Your task to perform on an android device: toggle data saver in the chrome app Image 0: 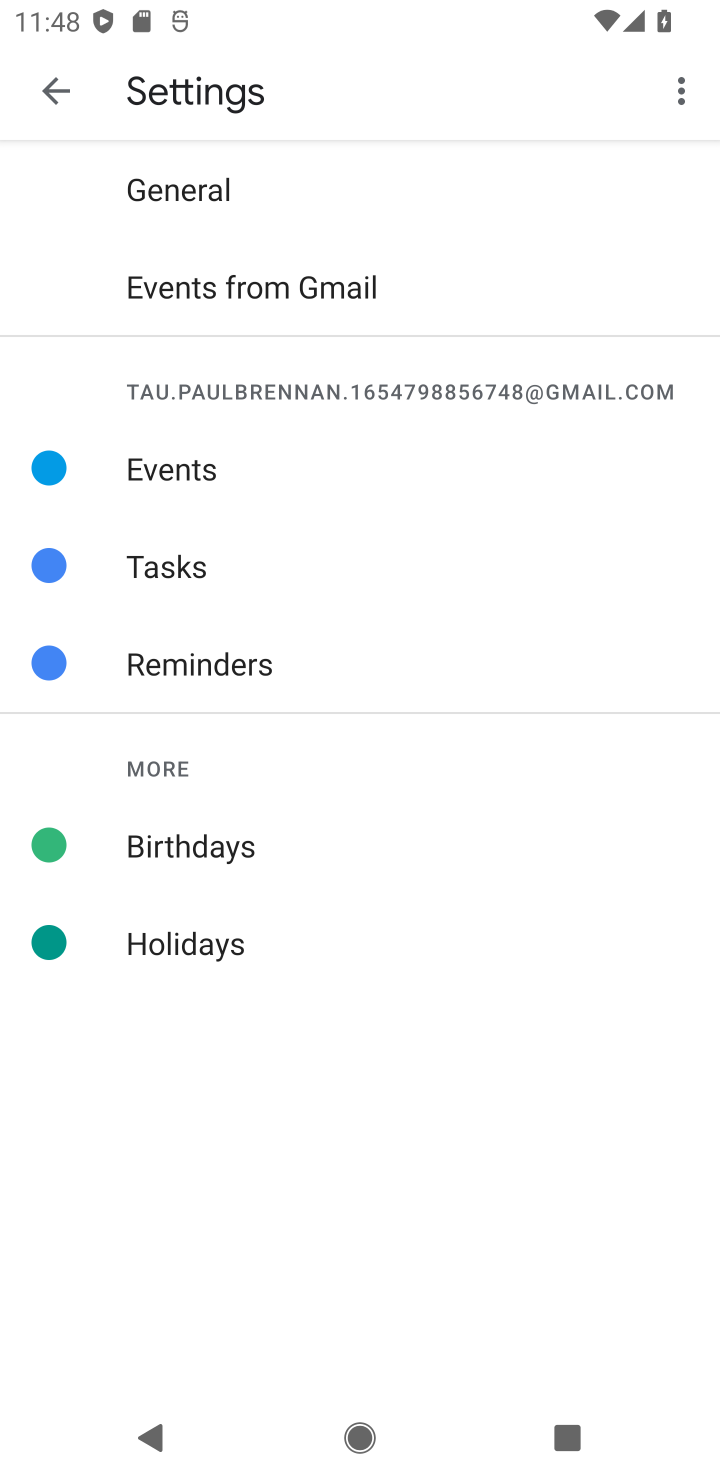
Step 0: press home button
Your task to perform on an android device: toggle data saver in the chrome app Image 1: 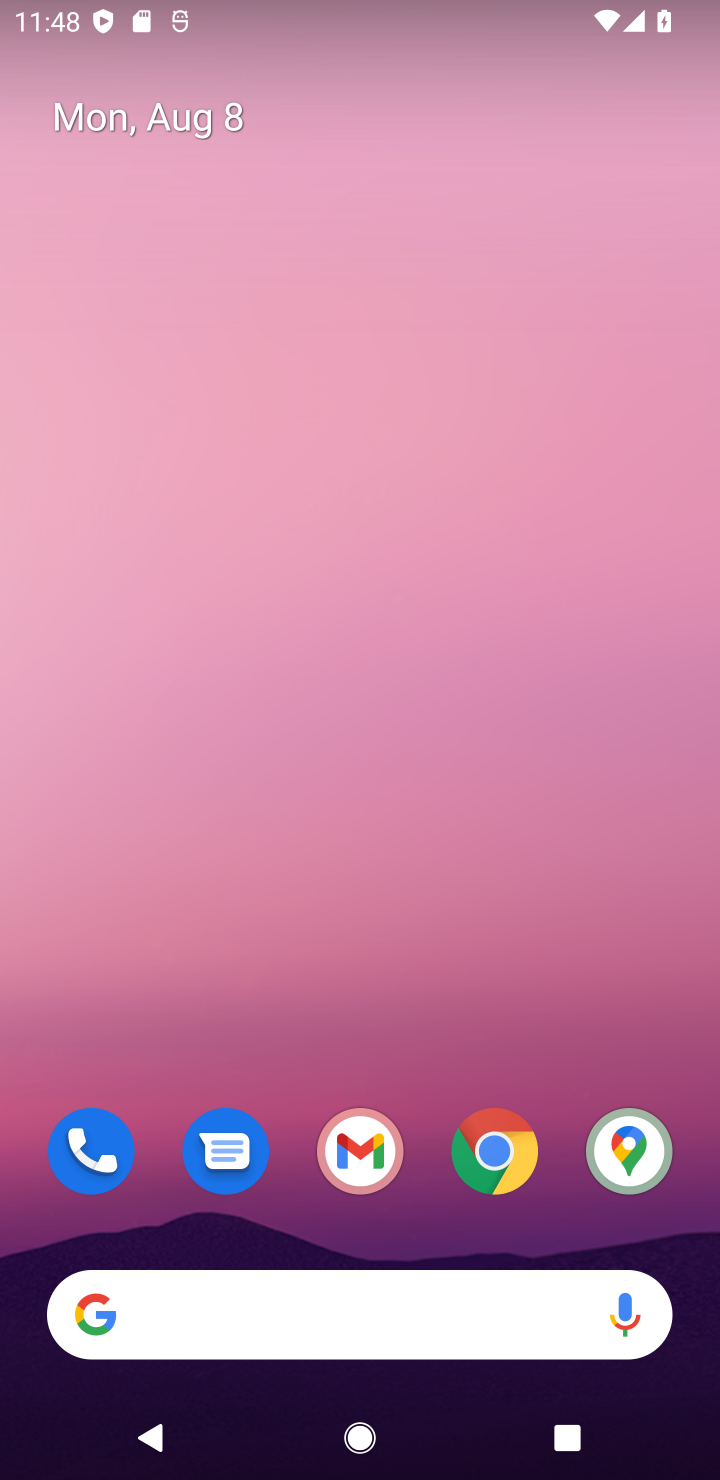
Step 1: click (509, 1160)
Your task to perform on an android device: toggle data saver in the chrome app Image 2: 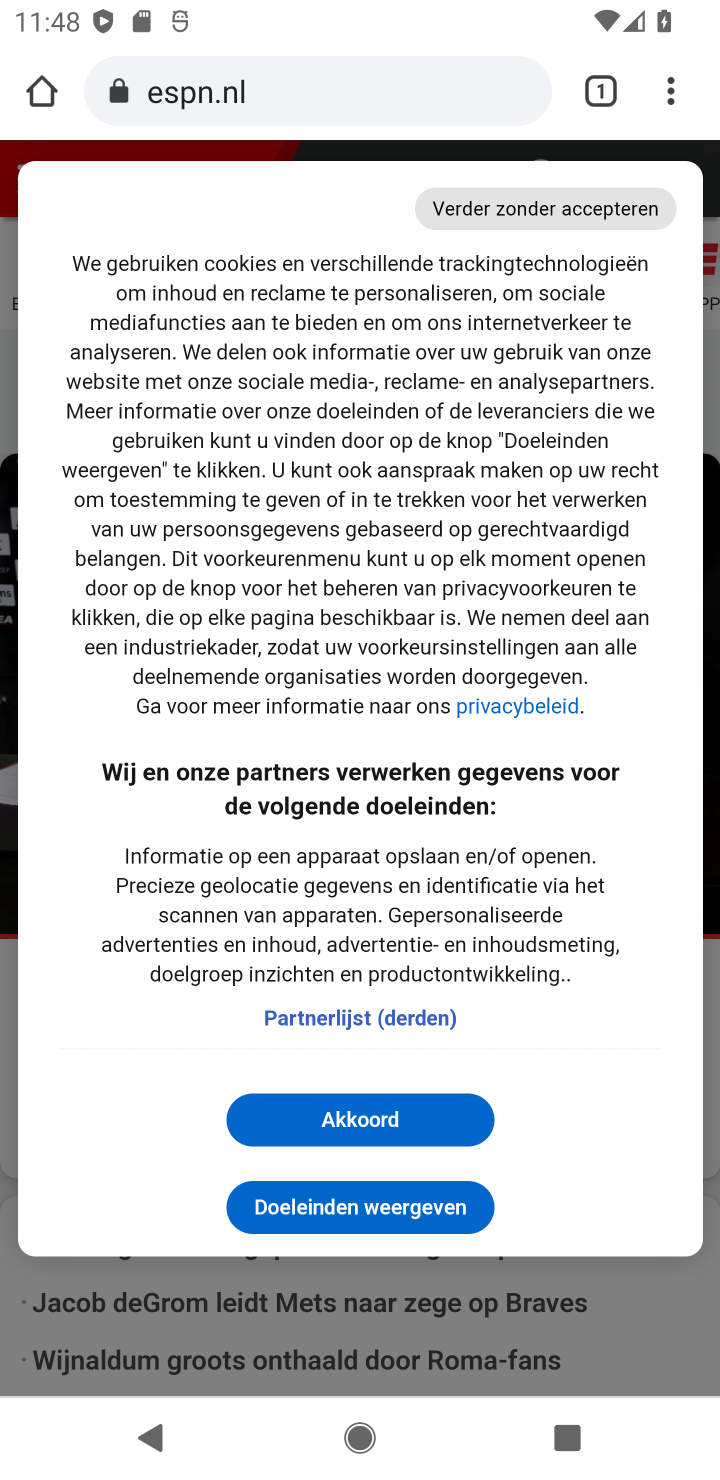
Step 2: click (669, 92)
Your task to perform on an android device: toggle data saver in the chrome app Image 3: 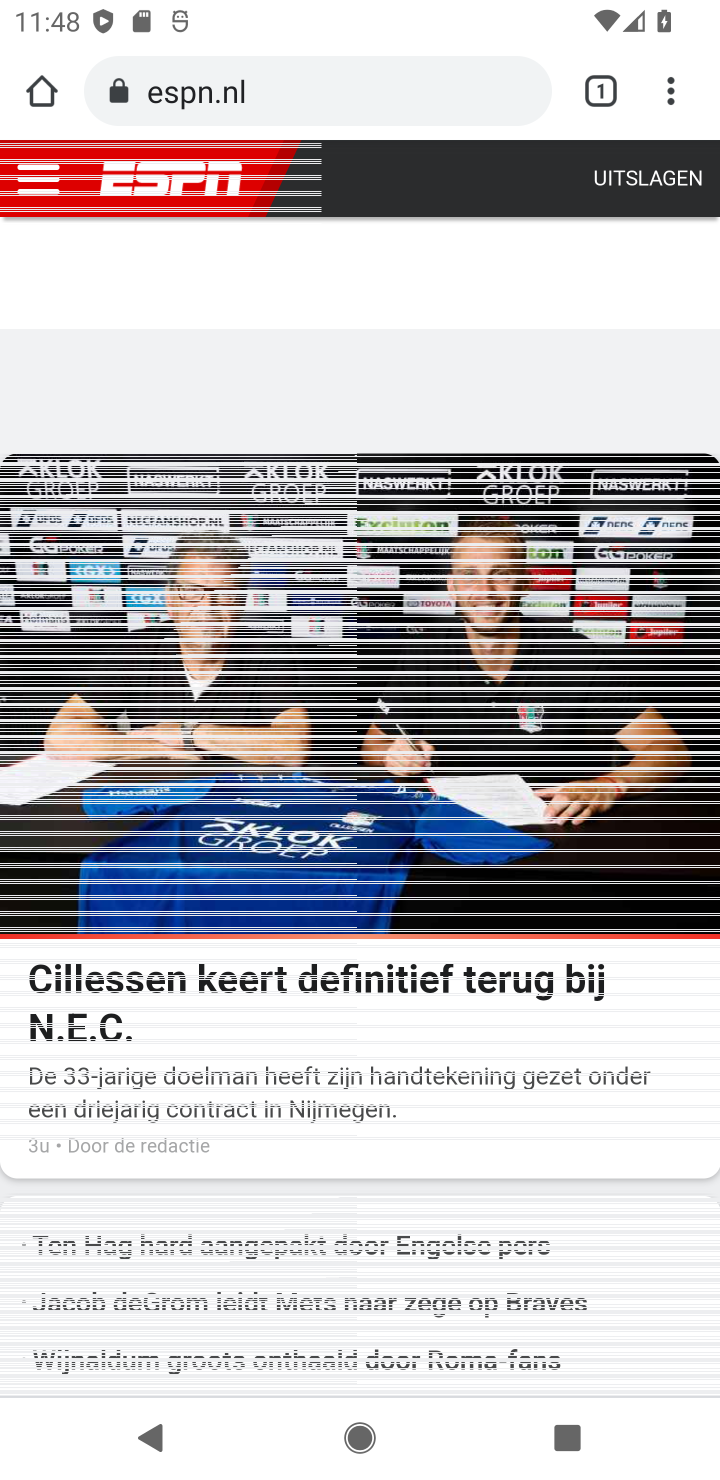
Step 3: click (668, 79)
Your task to perform on an android device: toggle data saver in the chrome app Image 4: 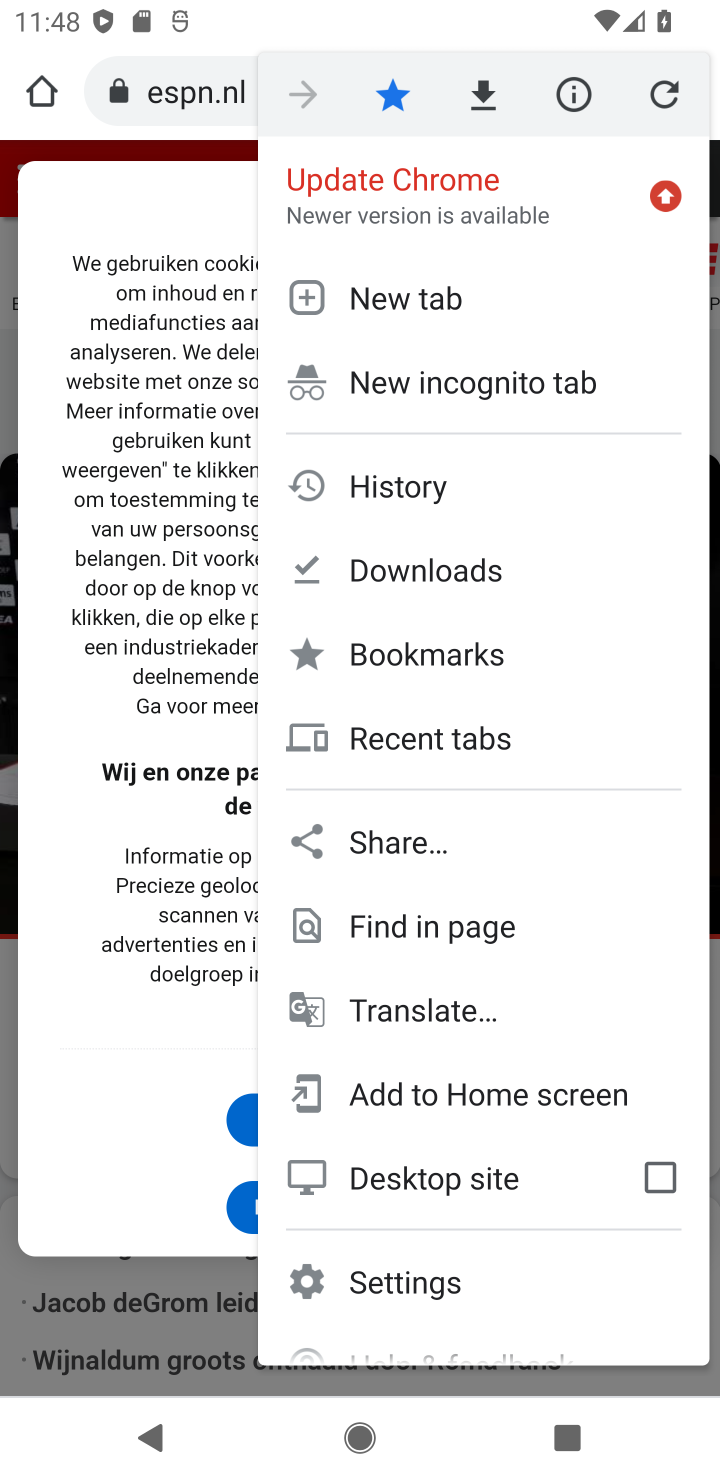
Step 4: click (421, 1285)
Your task to perform on an android device: toggle data saver in the chrome app Image 5: 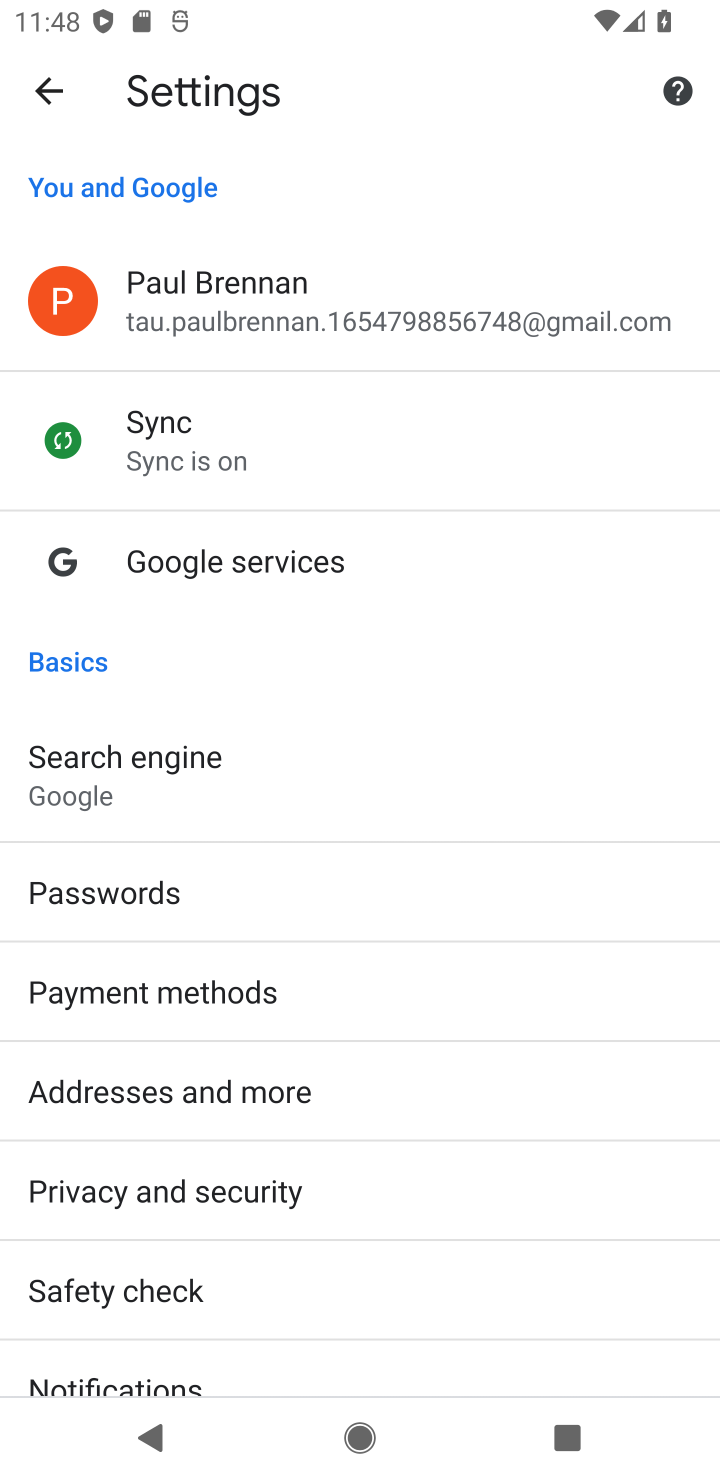
Step 5: drag from (248, 1268) to (221, 715)
Your task to perform on an android device: toggle data saver in the chrome app Image 6: 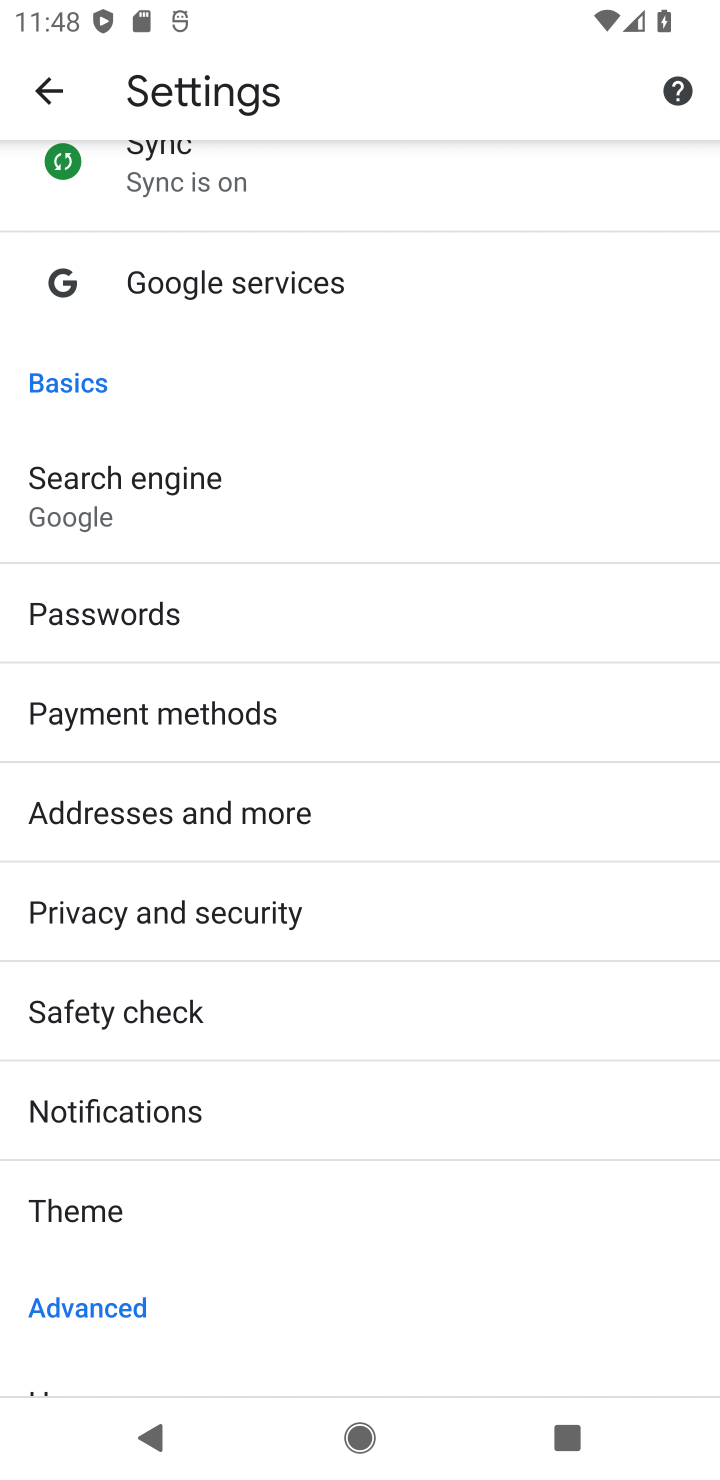
Step 6: drag from (284, 1289) to (160, 706)
Your task to perform on an android device: toggle data saver in the chrome app Image 7: 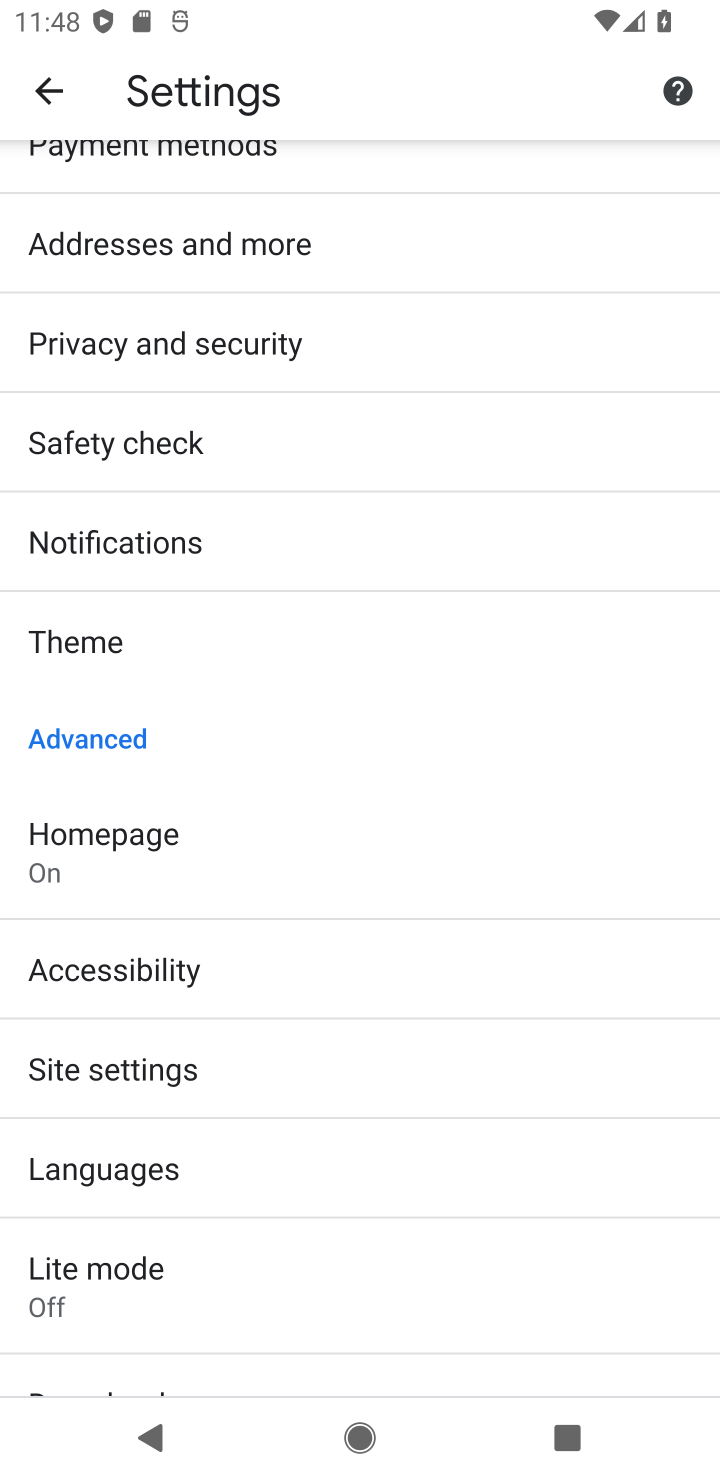
Step 7: click (156, 1269)
Your task to perform on an android device: toggle data saver in the chrome app Image 8: 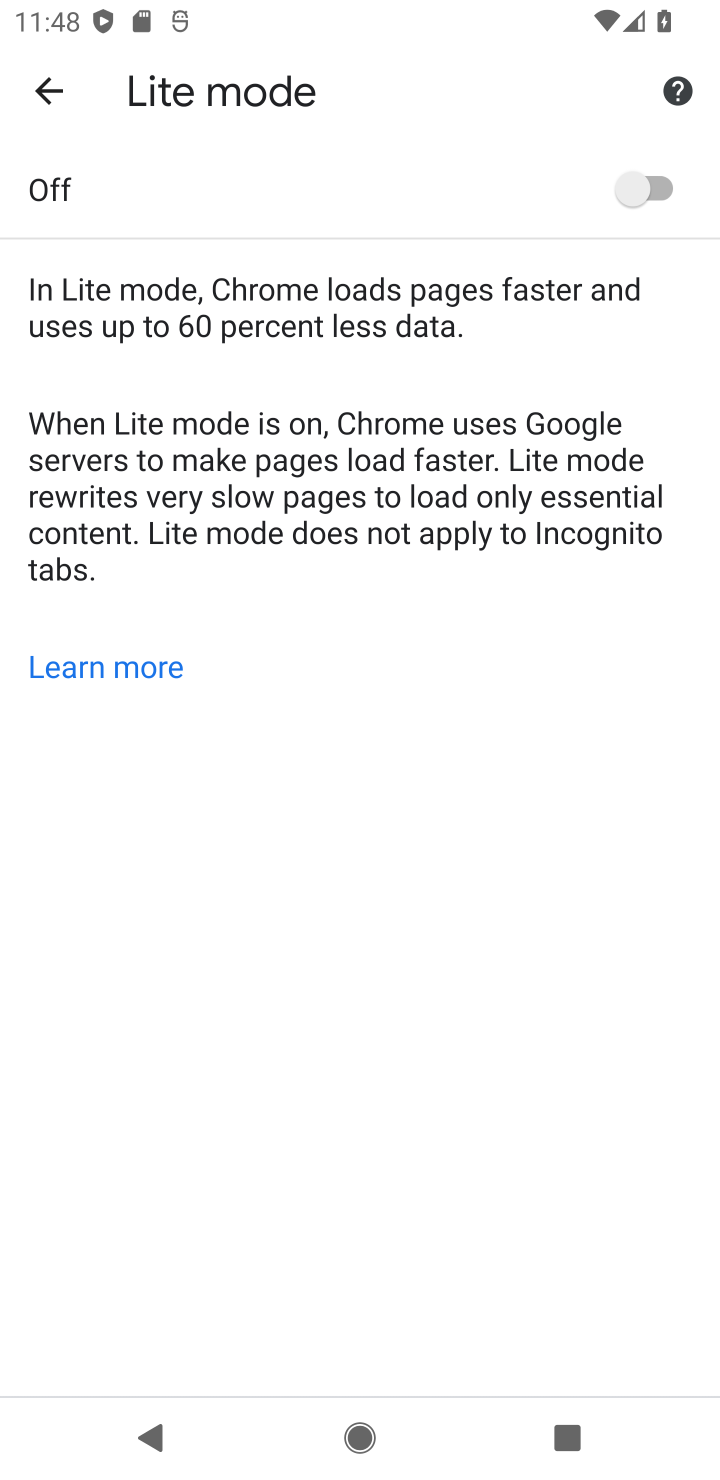
Step 8: click (633, 195)
Your task to perform on an android device: toggle data saver in the chrome app Image 9: 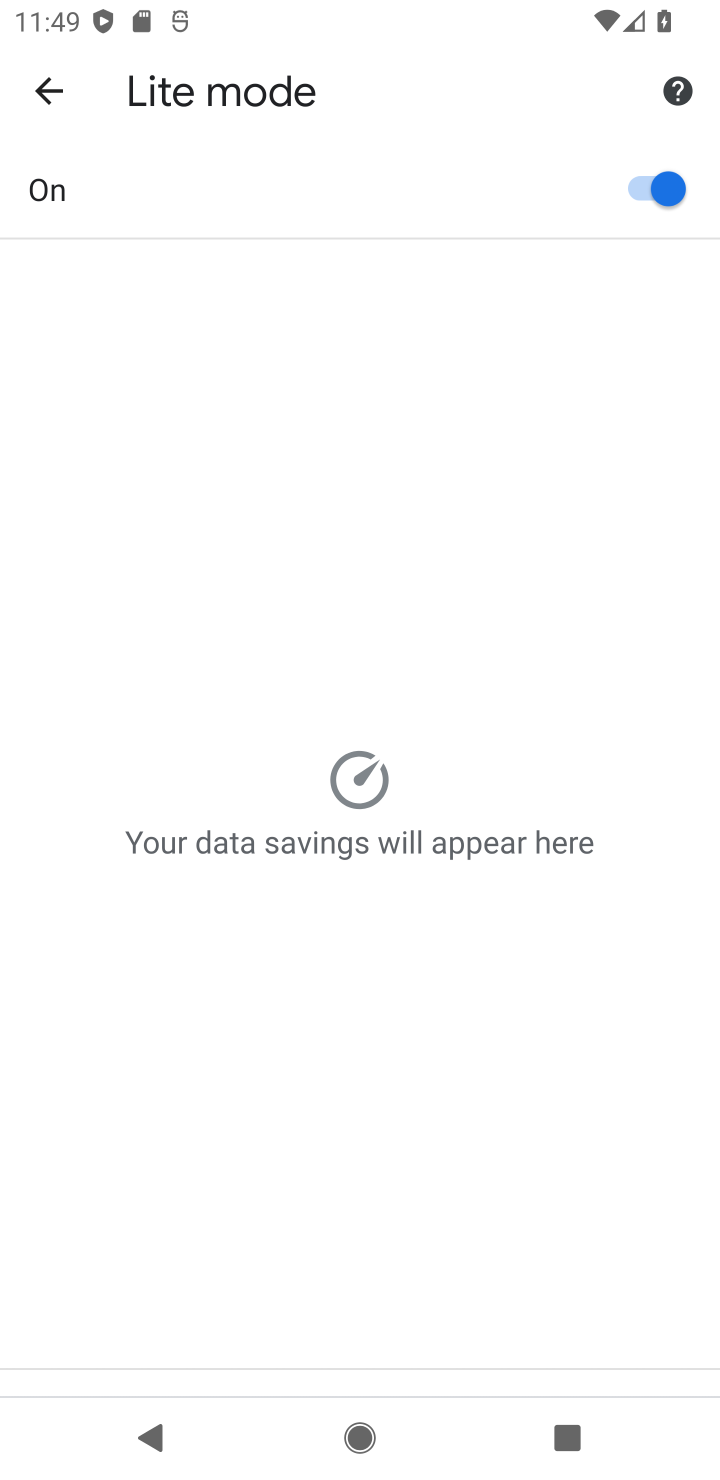
Step 9: task complete